Your task to perform on an android device: Open sound settings Image 0: 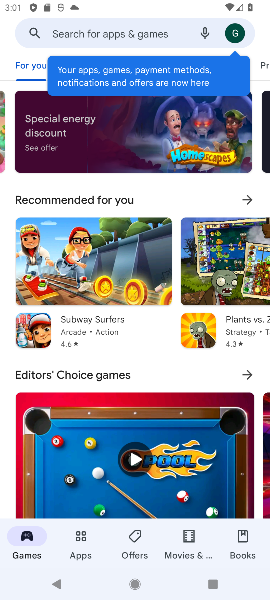
Step 0: press home button
Your task to perform on an android device: Open sound settings Image 1: 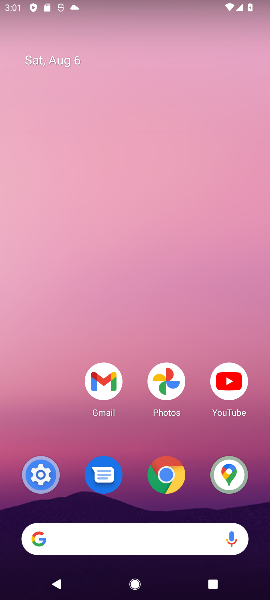
Step 1: click (35, 478)
Your task to perform on an android device: Open sound settings Image 2: 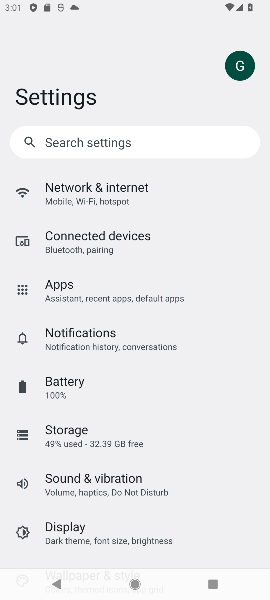
Step 2: click (69, 480)
Your task to perform on an android device: Open sound settings Image 3: 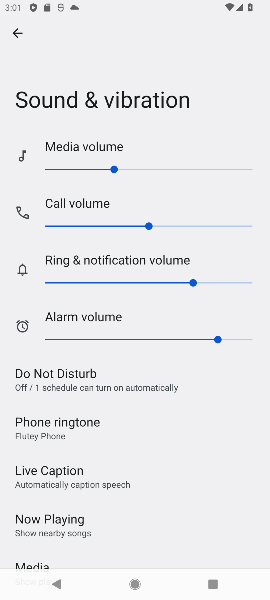
Step 3: task complete